Your task to perform on an android device: turn pop-ups off in chrome Image 0: 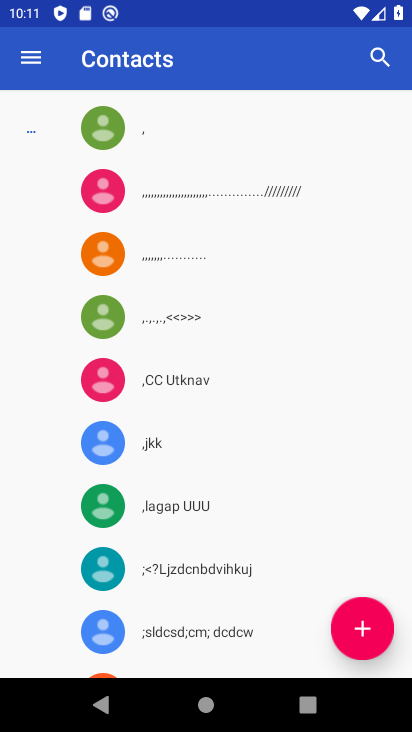
Step 0: press home button
Your task to perform on an android device: turn pop-ups off in chrome Image 1: 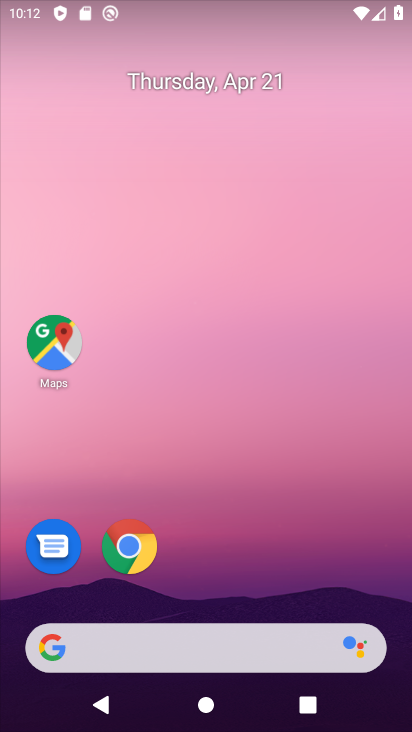
Step 1: drag from (246, 691) to (252, 335)
Your task to perform on an android device: turn pop-ups off in chrome Image 2: 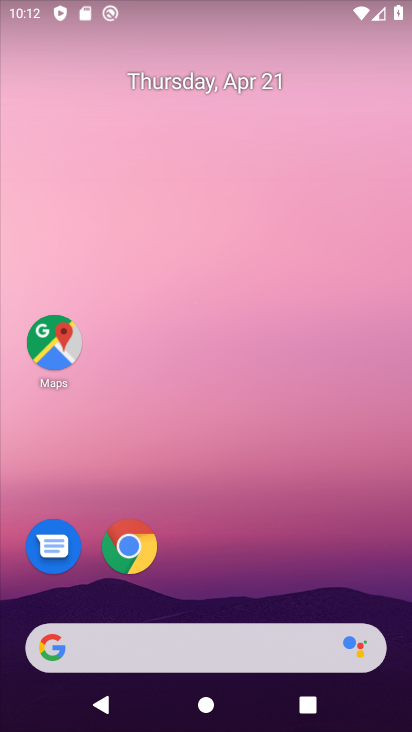
Step 2: drag from (251, 687) to (203, 160)
Your task to perform on an android device: turn pop-ups off in chrome Image 3: 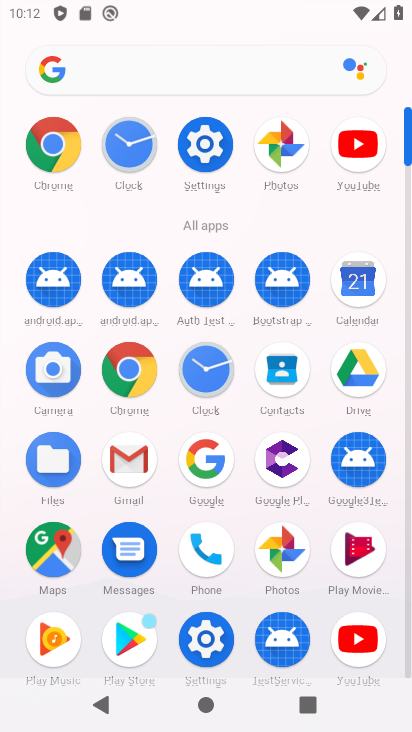
Step 3: click (137, 383)
Your task to perform on an android device: turn pop-ups off in chrome Image 4: 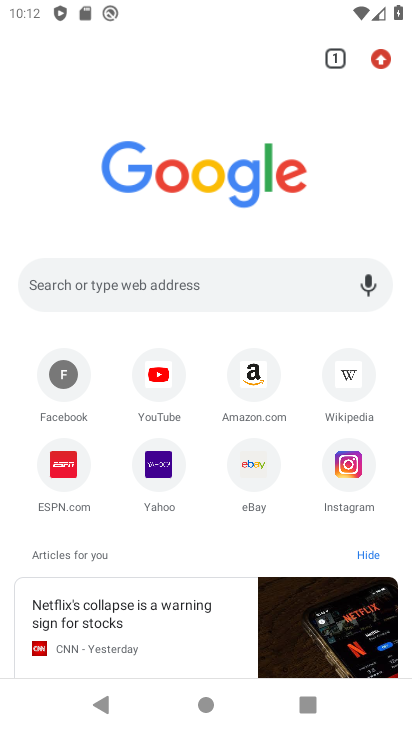
Step 4: click (377, 67)
Your task to perform on an android device: turn pop-ups off in chrome Image 5: 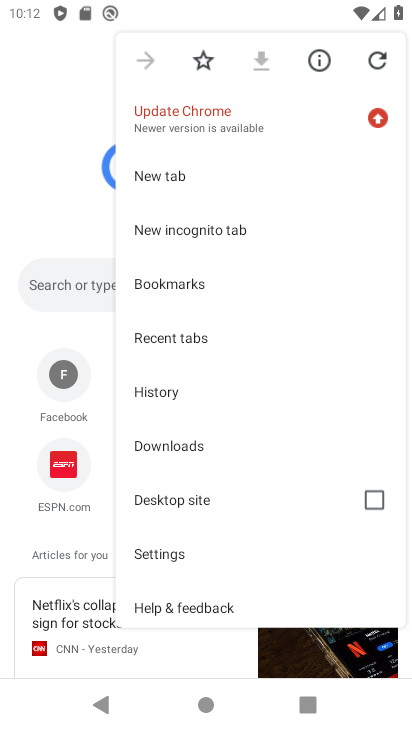
Step 5: click (193, 562)
Your task to perform on an android device: turn pop-ups off in chrome Image 6: 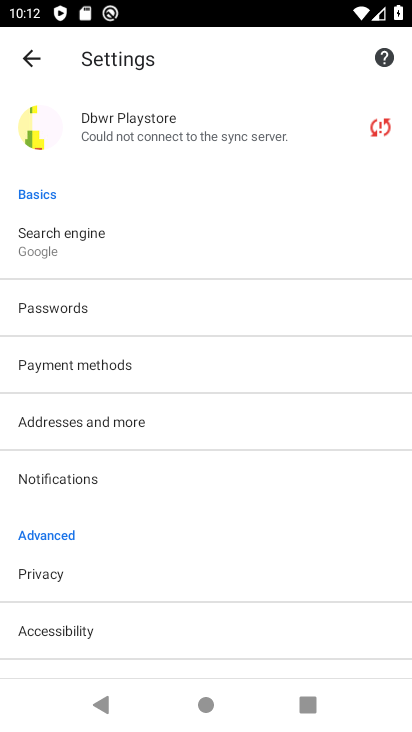
Step 6: drag from (177, 599) to (195, 478)
Your task to perform on an android device: turn pop-ups off in chrome Image 7: 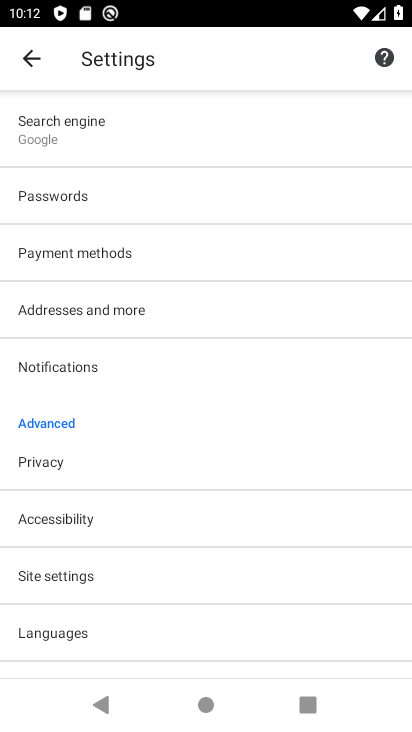
Step 7: click (70, 583)
Your task to perform on an android device: turn pop-ups off in chrome Image 8: 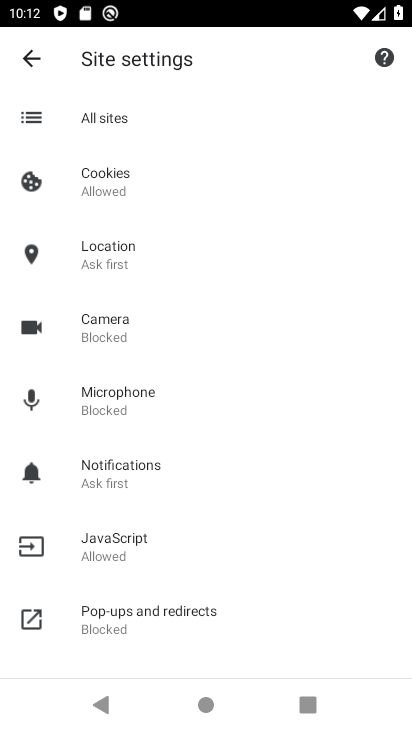
Step 8: click (129, 615)
Your task to perform on an android device: turn pop-ups off in chrome Image 9: 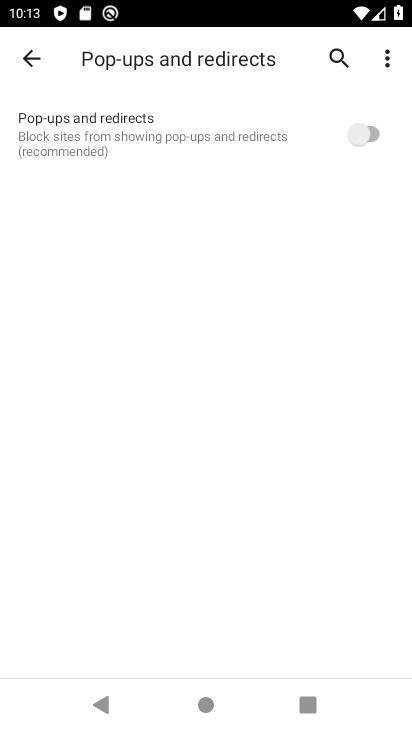
Step 9: click (322, 137)
Your task to perform on an android device: turn pop-ups off in chrome Image 10: 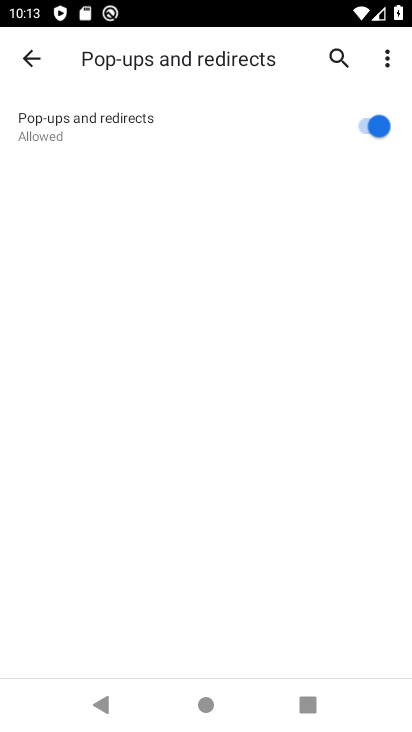
Step 10: click (314, 144)
Your task to perform on an android device: turn pop-ups off in chrome Image 11: 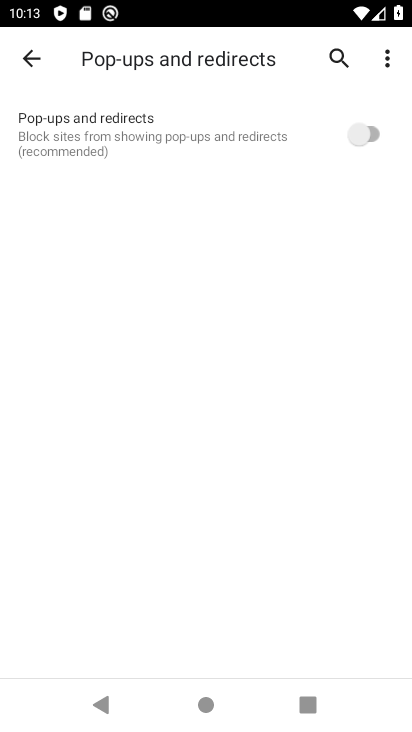
Step 11: task complete